Your task to perform on an android device: open the mobile data screen to see how much data has been used Image 0: 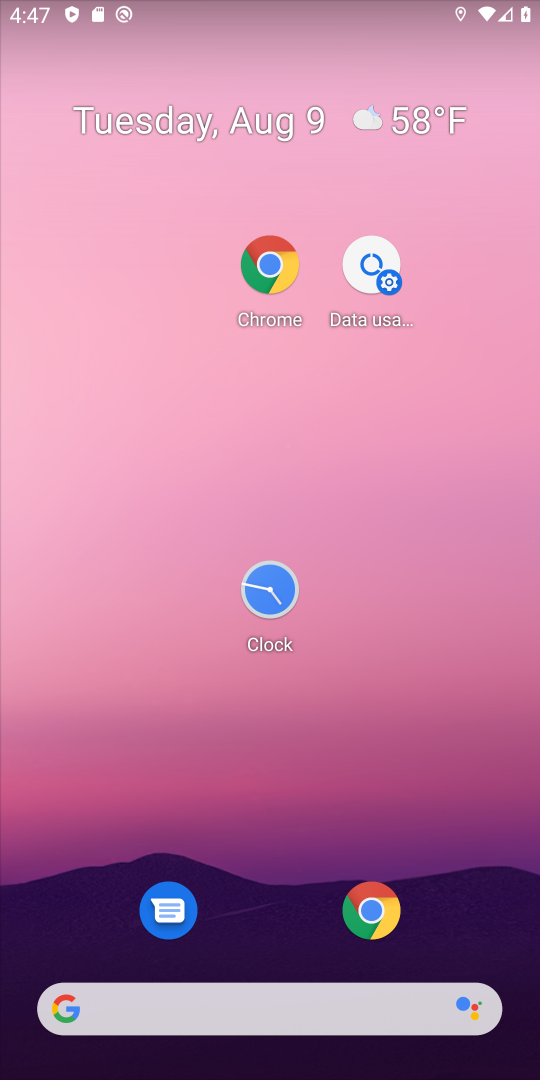
Step 0: drag from (334, 778) to (375, 67)
Your task to perform on an android device: open the mobile data screen to see how much data has been used Image 1: 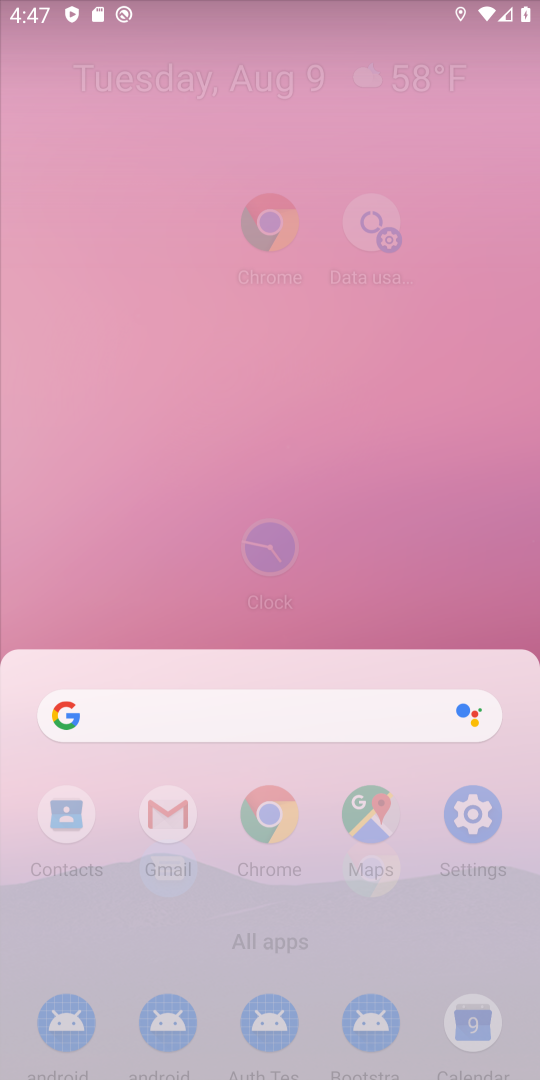
Step 1: drag from (243, 479) to (229, 185)
Your task to perform on an android device: open the mobile data screen to see how much data has been used Image 2: 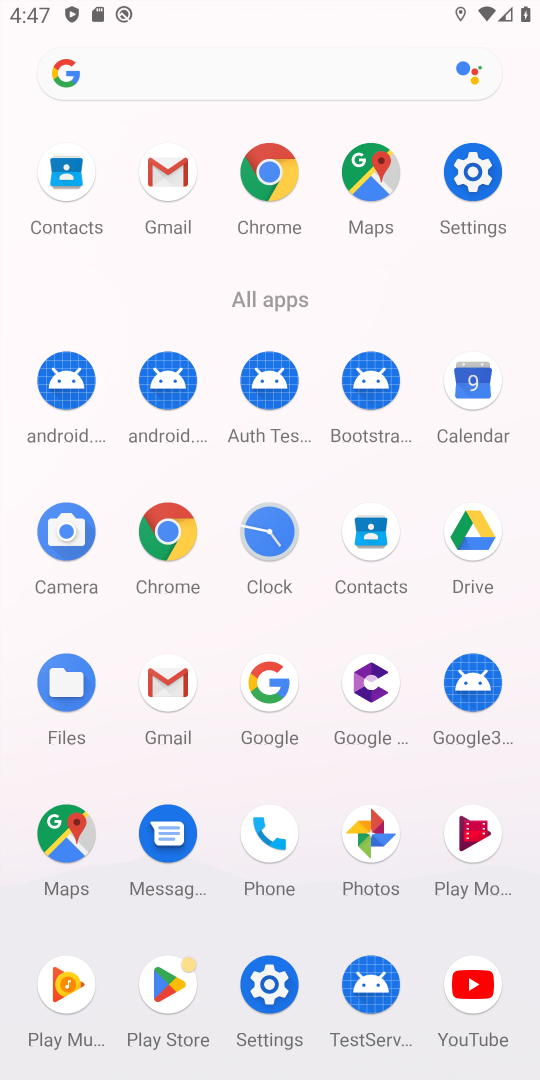
Step 2: drag from (285, 409) to (293, 96)
Your task to perform on an android device: open the mobile data screen to see how much data has been used Image 3: 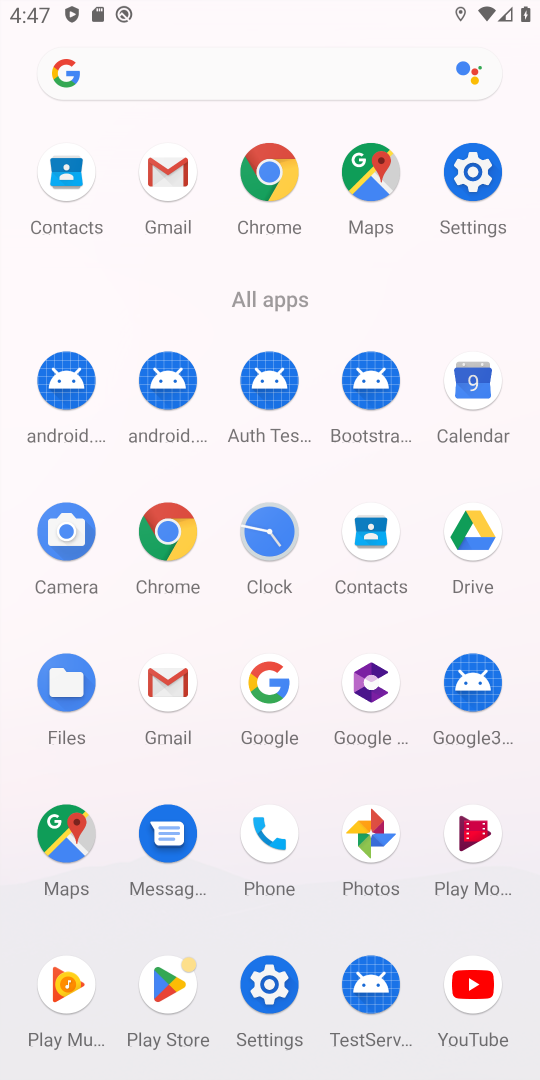
Step 3: click (461, 157)
Your task to perform on an android device: open the mobile data screen to see how much data has been used Image 4: 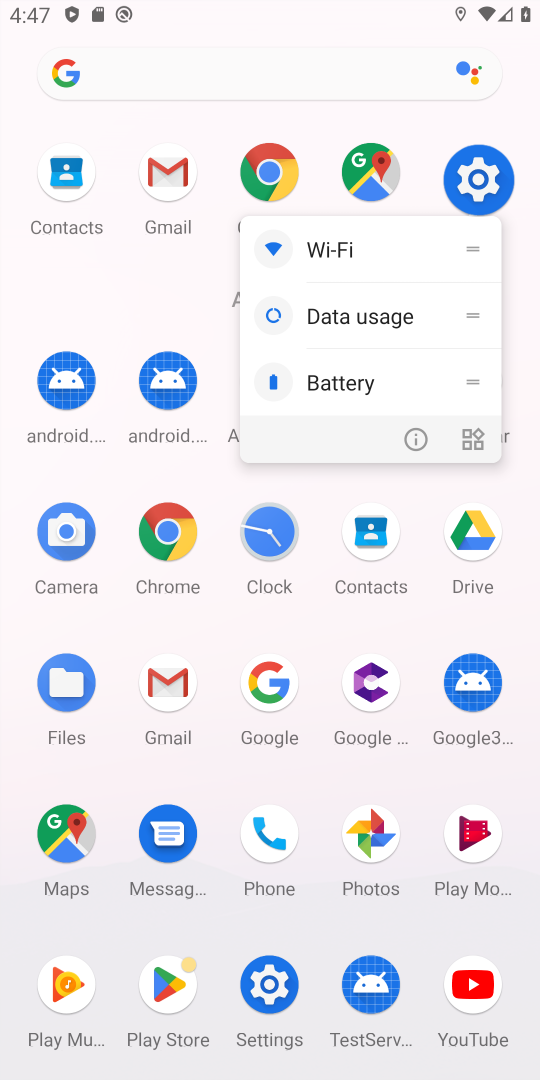
Step 4: click (467, 165)
Your task to perform on an android device: open the mobile data screen to see how much data has been used Image 5: 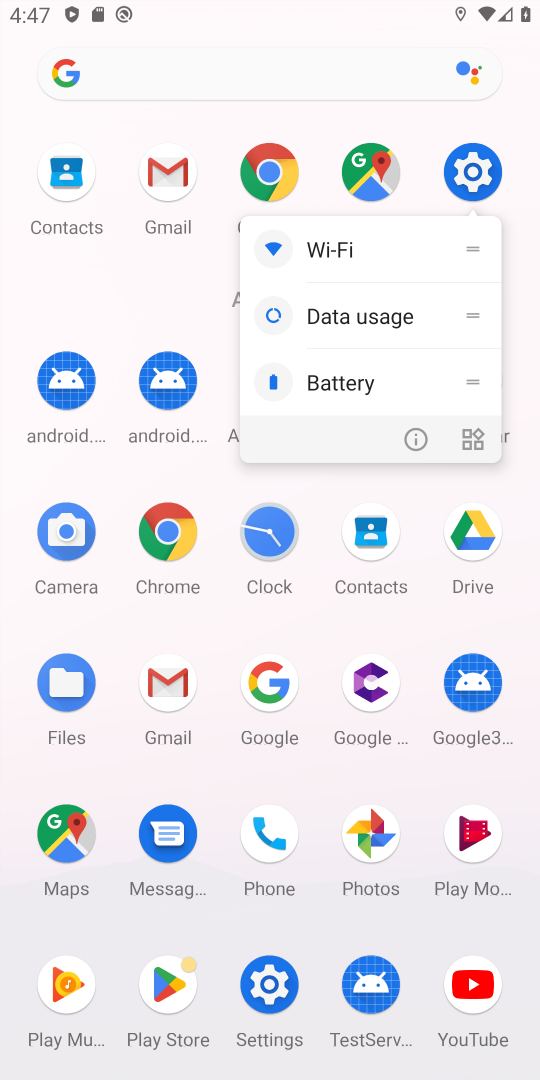
Step 5: click (463, 178)
Your task to perform on an android device: open the mobile data screen to see how much data has been used Image 6: 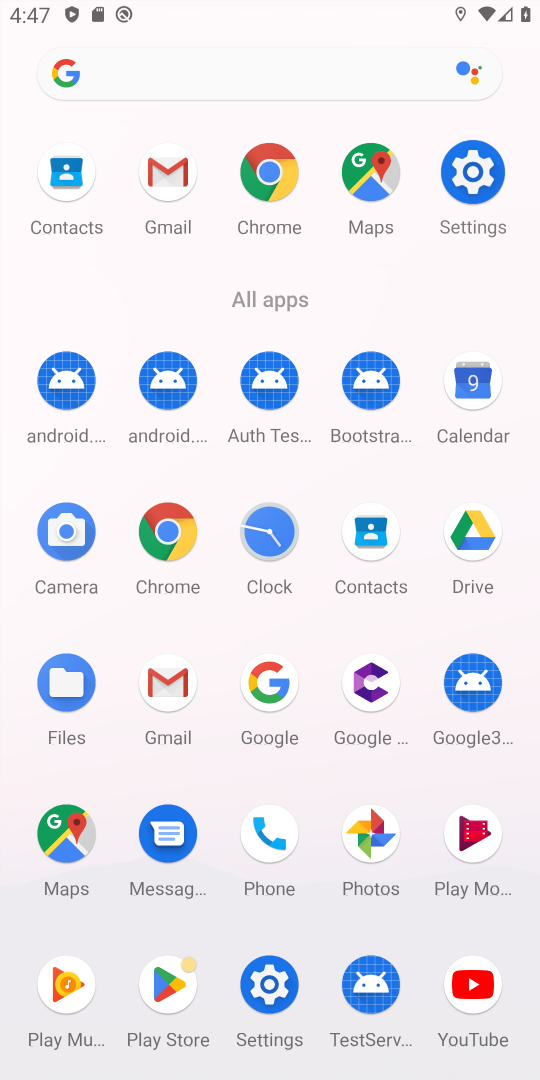
Step 6: click (469, 190)
Your task to perform on an android device: open the mobile data screen to see how much data has been used Image 7: 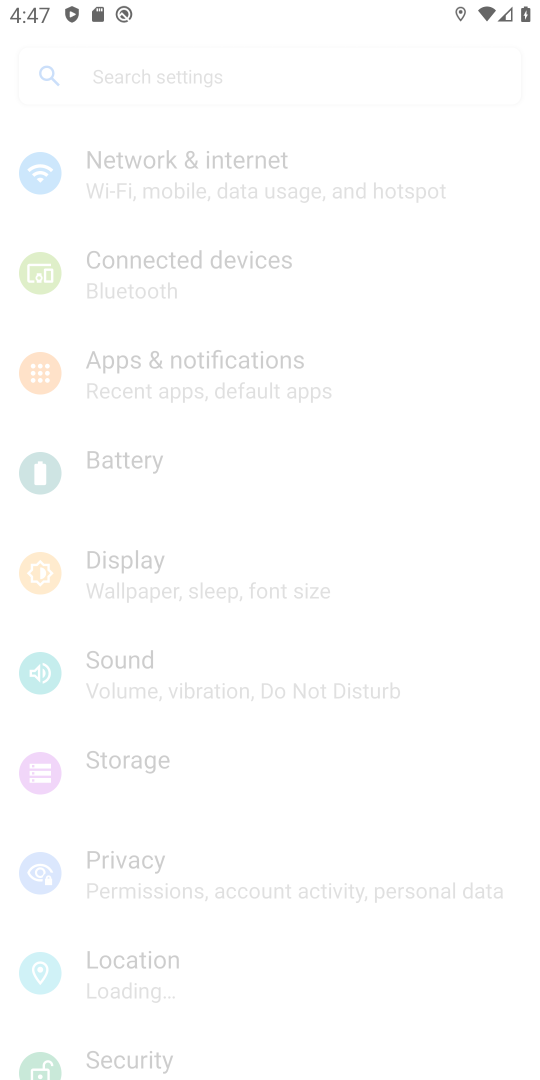
Step 7: click (480, 192)
Your task to perform on an android device: open the mobile data screen to see how much data has been used Image 8: 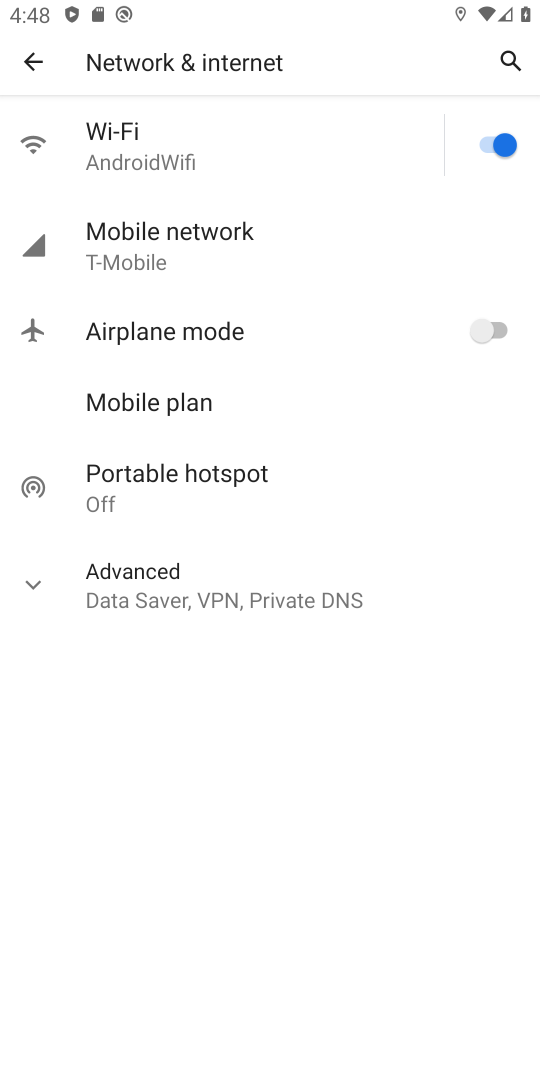
Step 8: click (121, 280)
Your task to perform on an android device: open the mobile data screen to see how much data has been used Image 9: 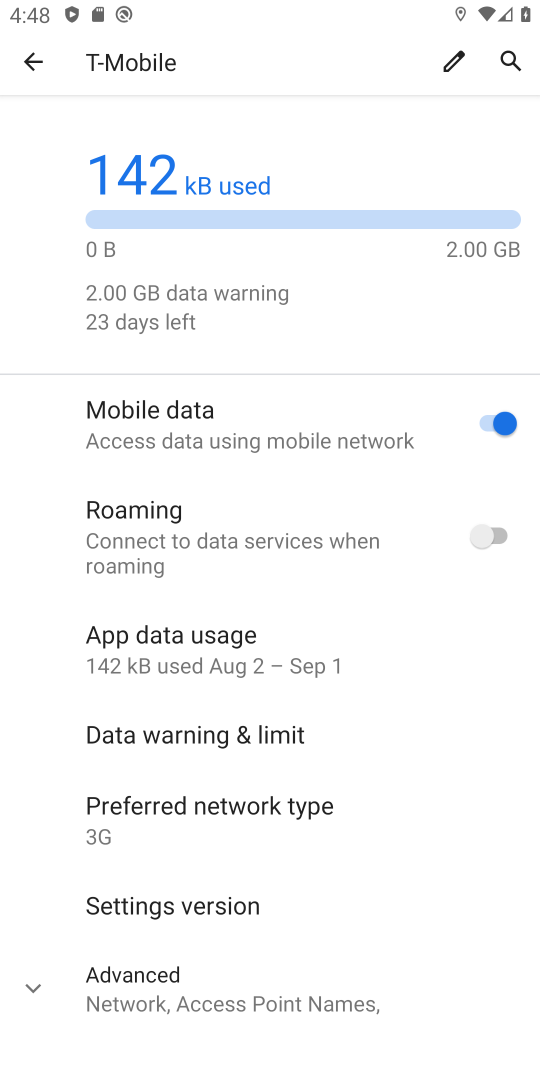
Step 9: task complete